Your task to perform on an android device: toggle airplane mode Image 0: 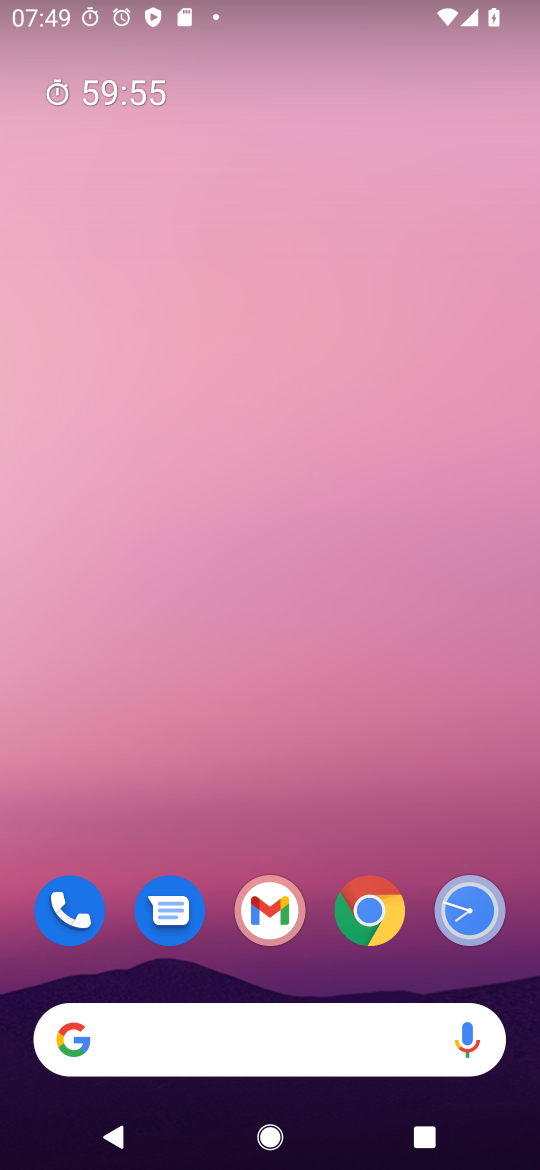
Step 0: drag from (251, 1048) to (313, 57)
Your task to perform on an android device: toggle airplane mode Image 1: 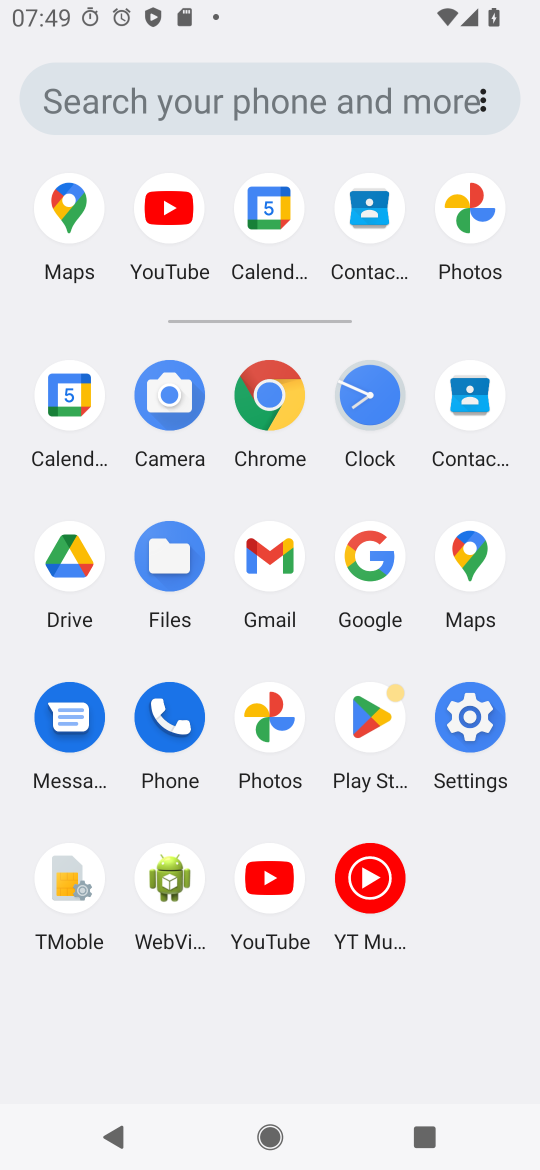
Step 1: click (476, 723)
Your task to perform on an android device: toggle airplane mode Image 2: 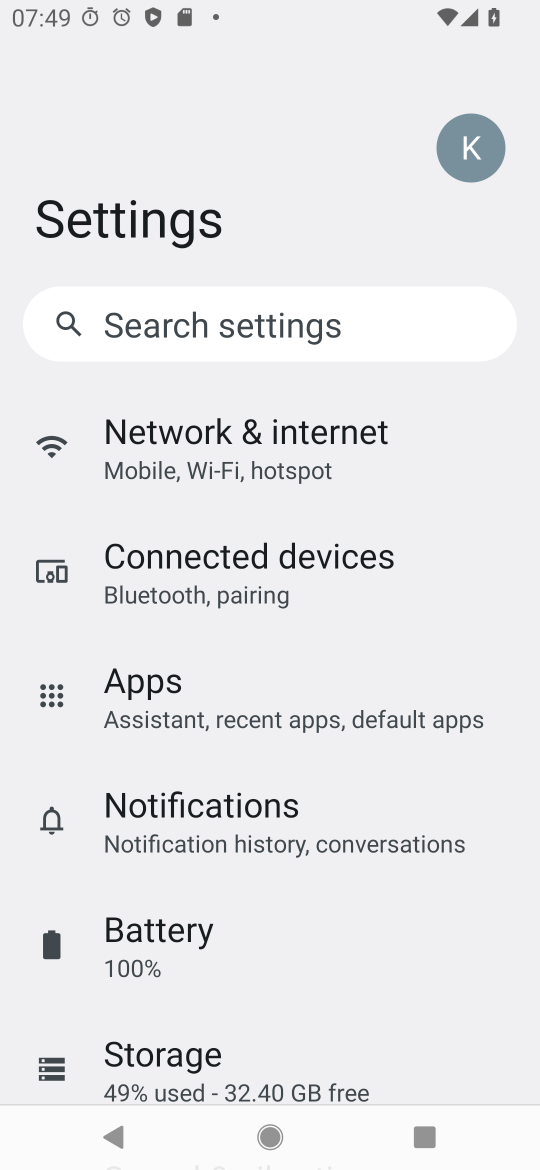
Step 2: click (215, 446)
Your task to perform on an android device: toggle airplane mode Image 3: 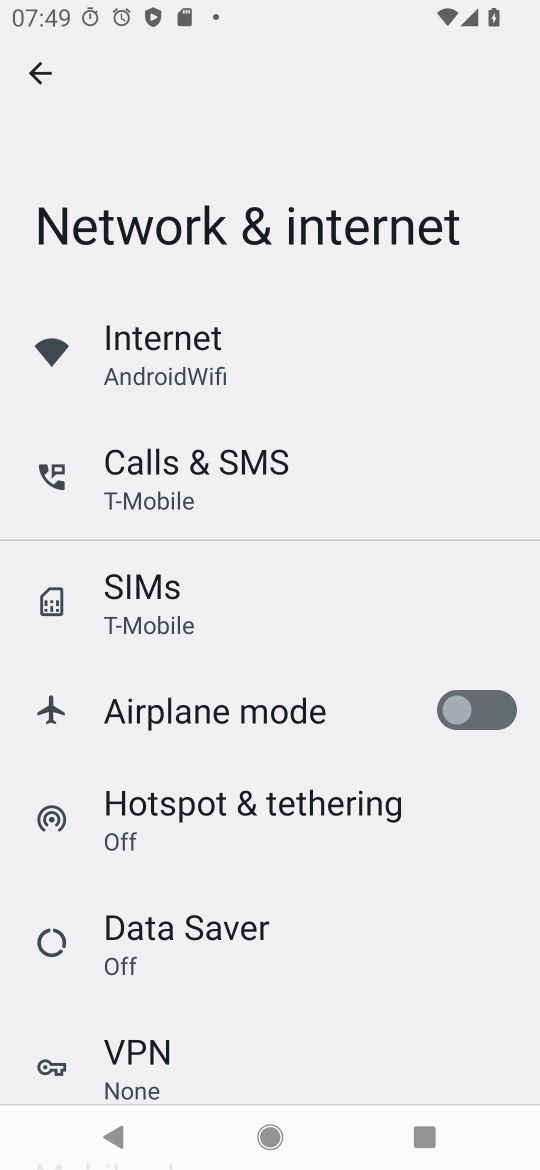
Step 3: click (478, 705)
Your task to perform on an android device: toggle airplane mode Image 4: 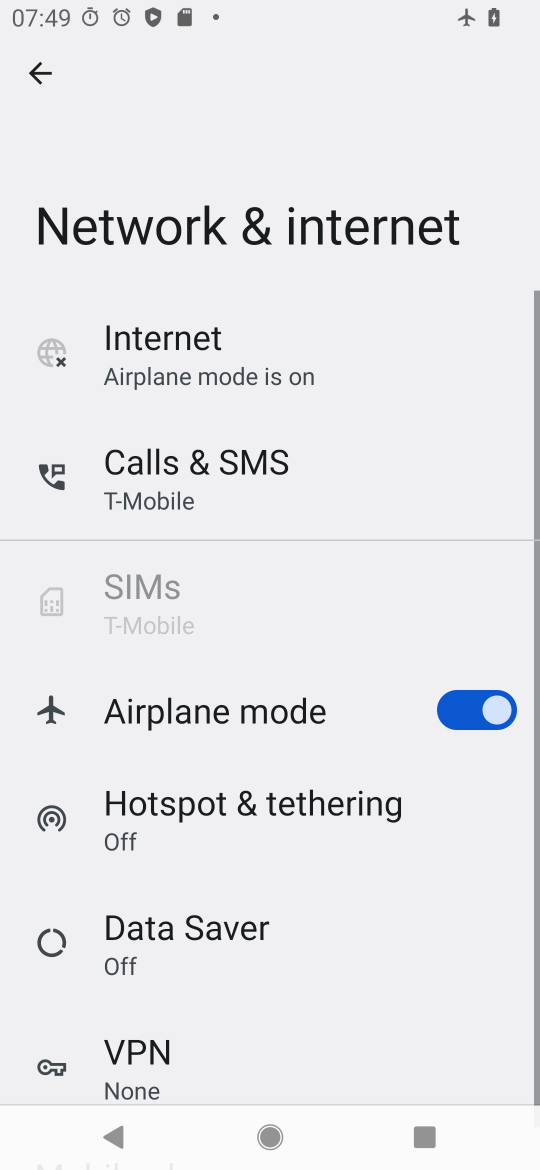
Step 4: task complete